Your task to perform on an android device: Open the web browser Image 0: 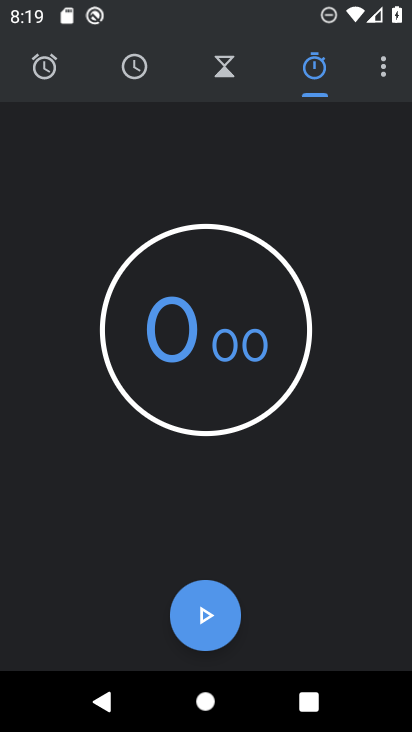
Step 0: press home button
Your task to perform on an android device: Open the web browser Image 1: 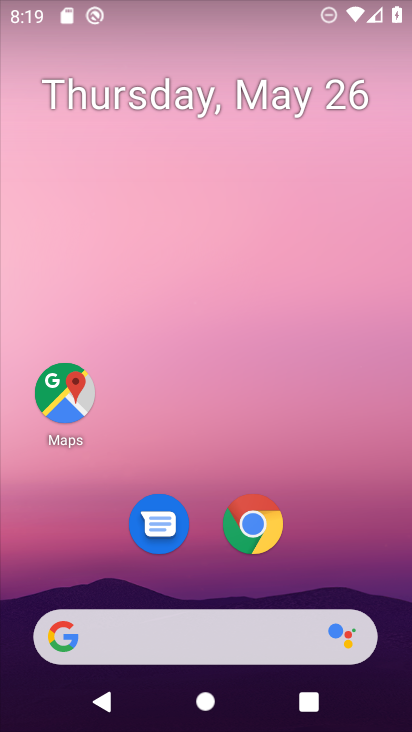
Step 1: click (253, 528)
Your task to perform on an android device: Open the web browser Image 2: 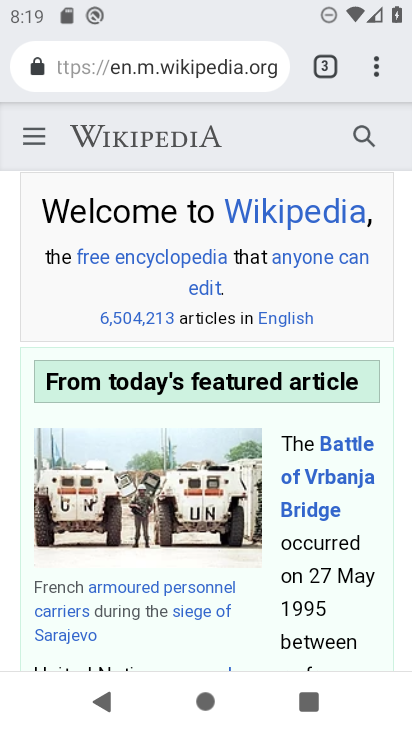
Step 2: click (379, 70)
Your task to perform on an android device: Open the web browser Image 3: 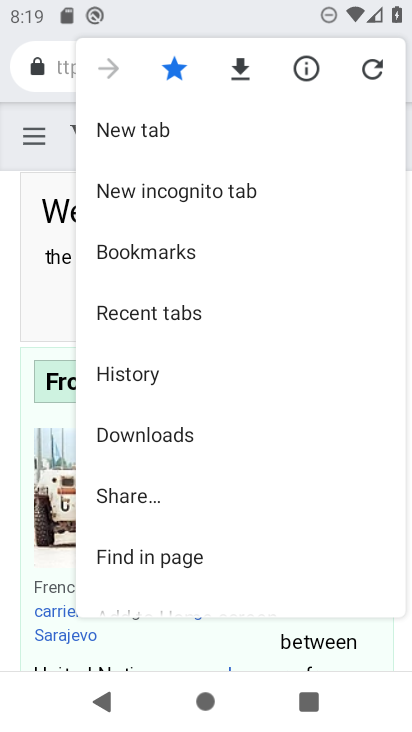
Step 3: click (293, 123)
Your task to perform on an android device: Open the web browser Image 4: 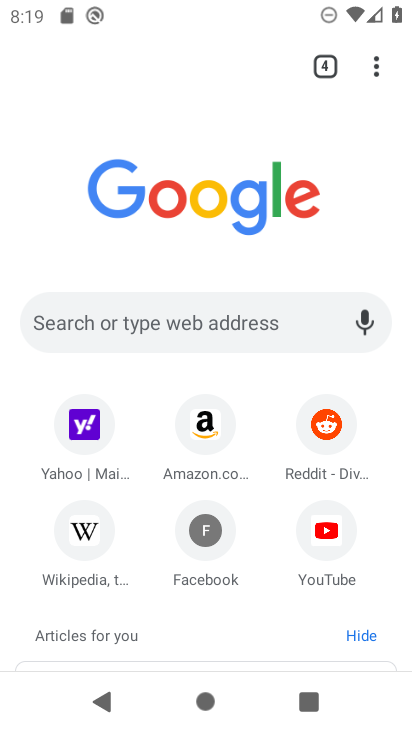
Step 4: task complete